Your task to perform on an android device: Search for Italian restaurants on Maps Image 0: 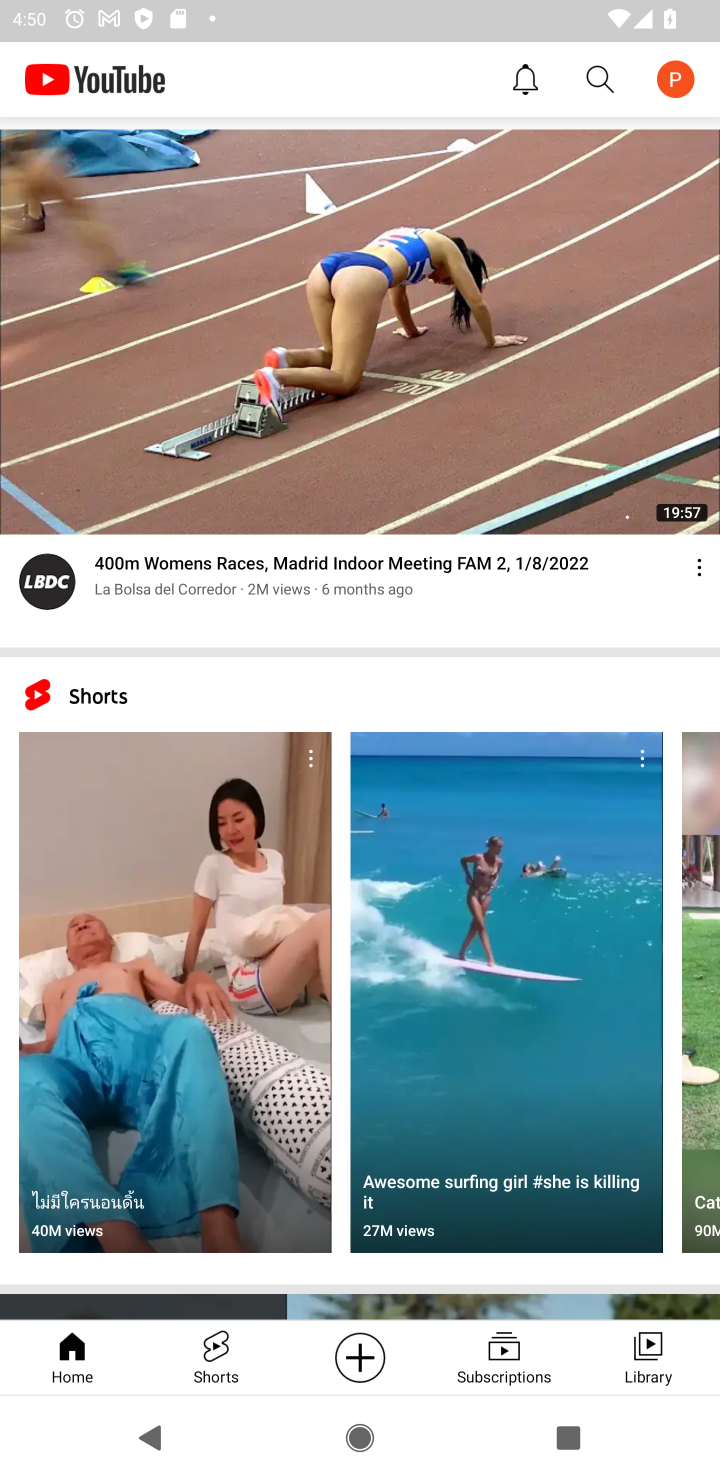
Step 0: press home button
Your task to perform on an android device: Search for Italian restaurants on Maps Image 1: 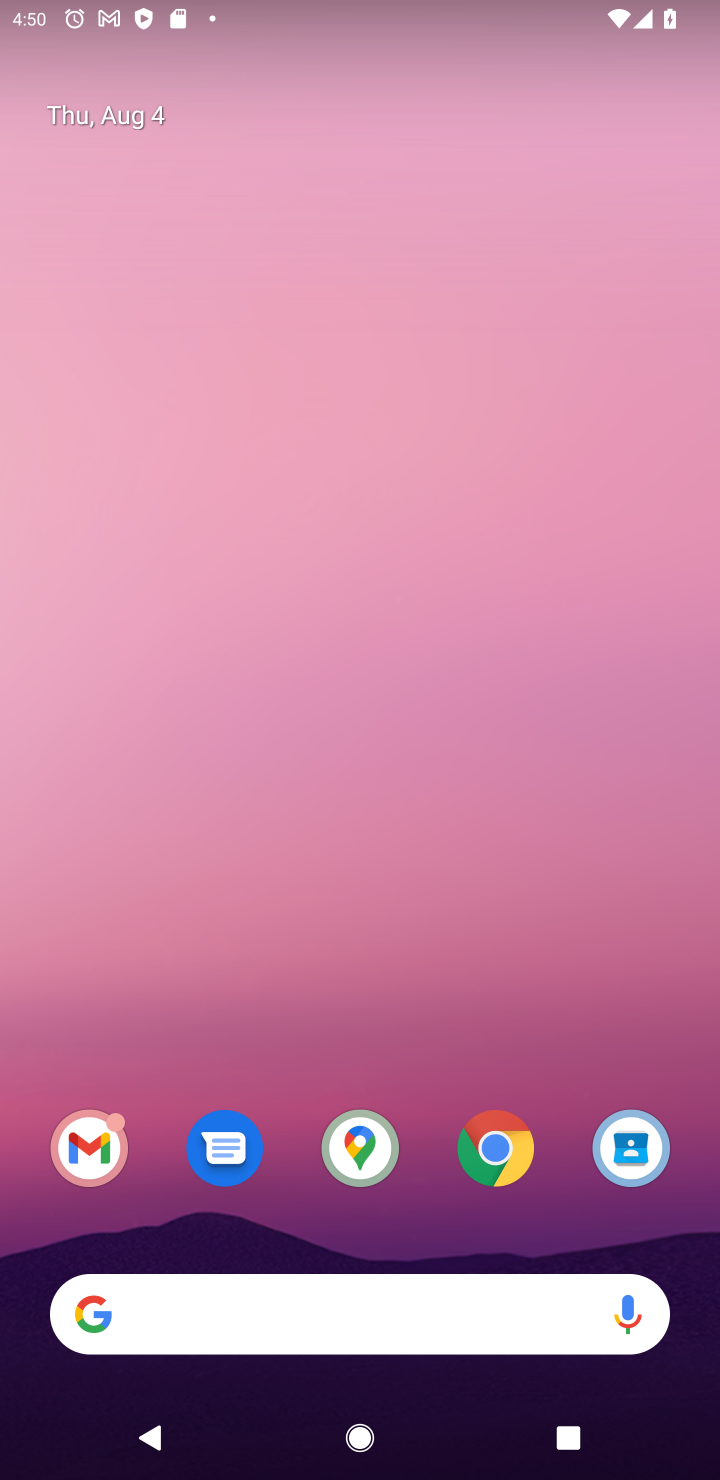
Step 1: click (358, 1150)
Your task to perform on an android device: Search for Italian restaurants on Maps Image 2: 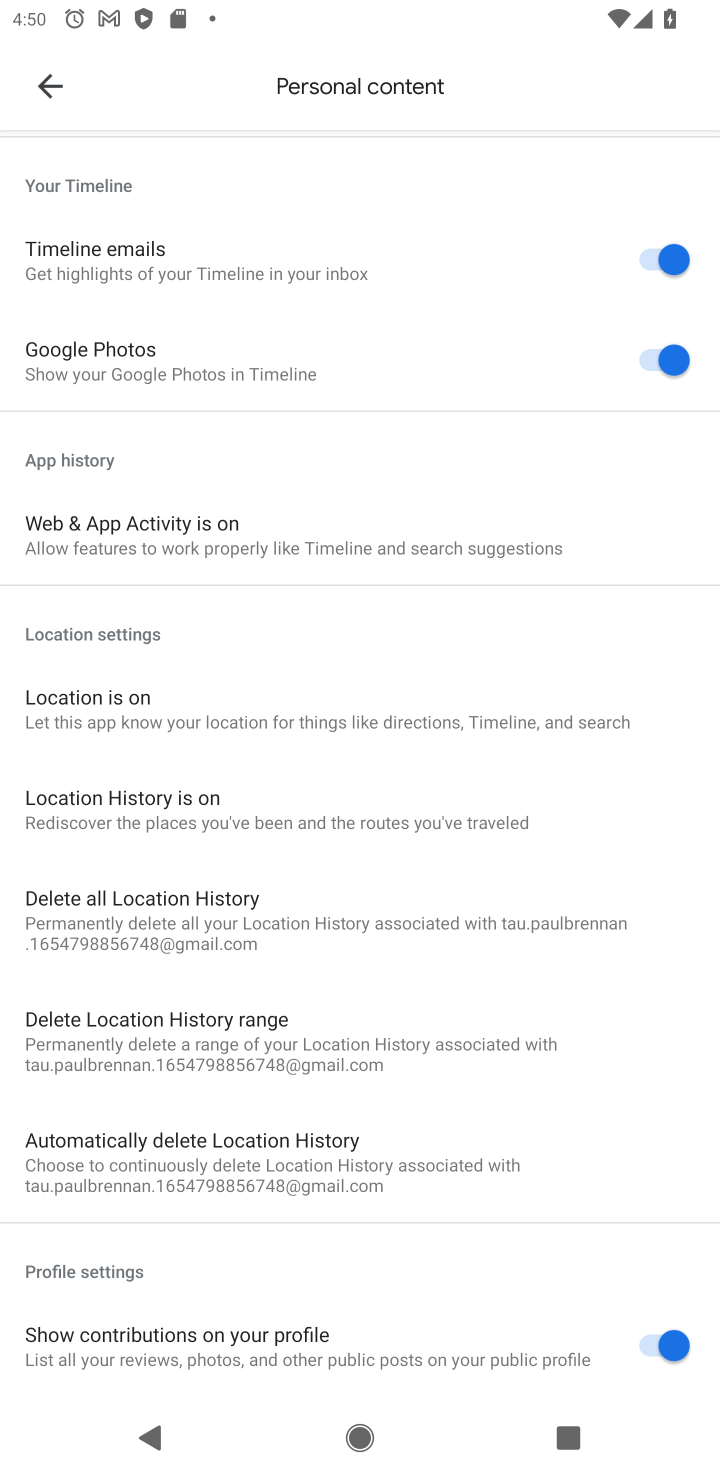
Step 2: press back button
Your task to perform on an android device: Search for Italian restaurants on Maps Image 3: 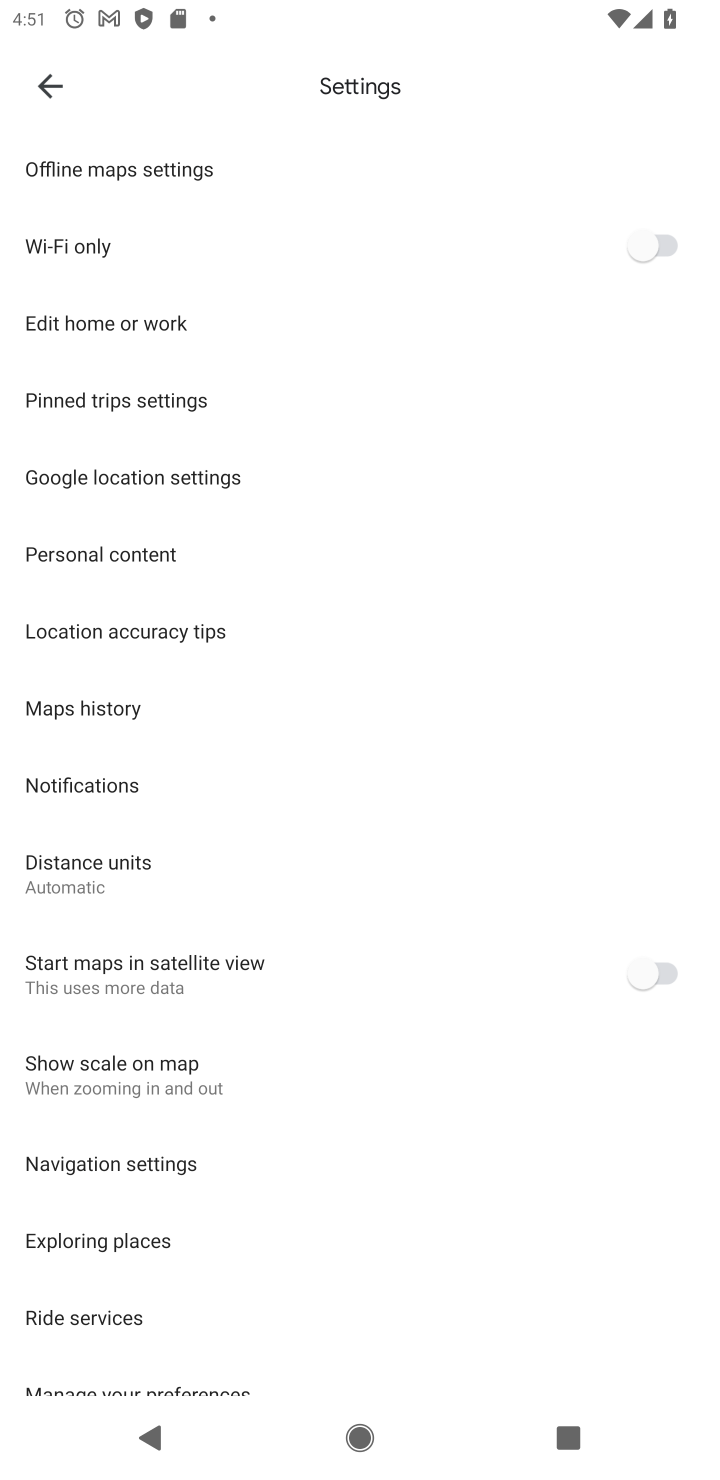
Step 3: press back button
Your task to perform on an android device: Search for Italian restaurants on Maps Image 4: 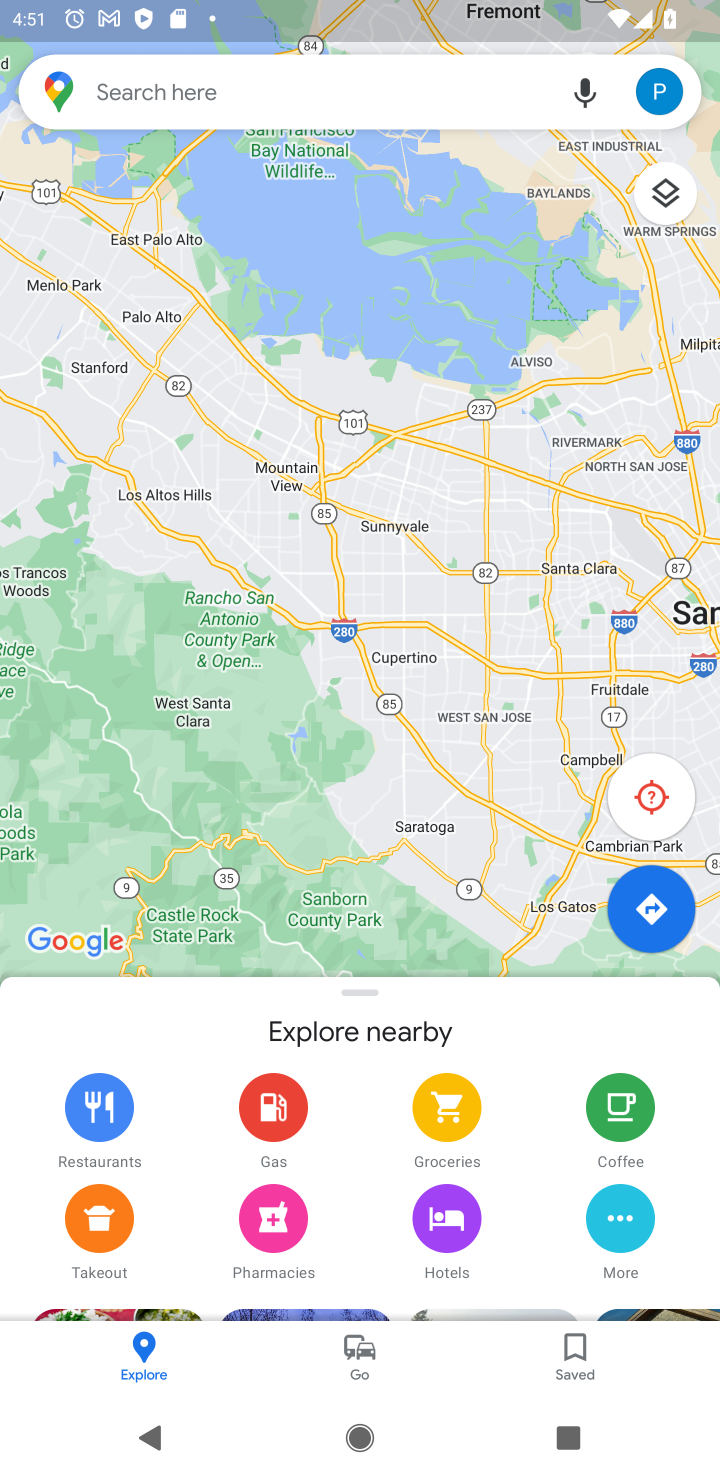
Step 4: click (245, 96)
Your task to perform on an android device: Search for Italian restaurants on Maps Image 5: 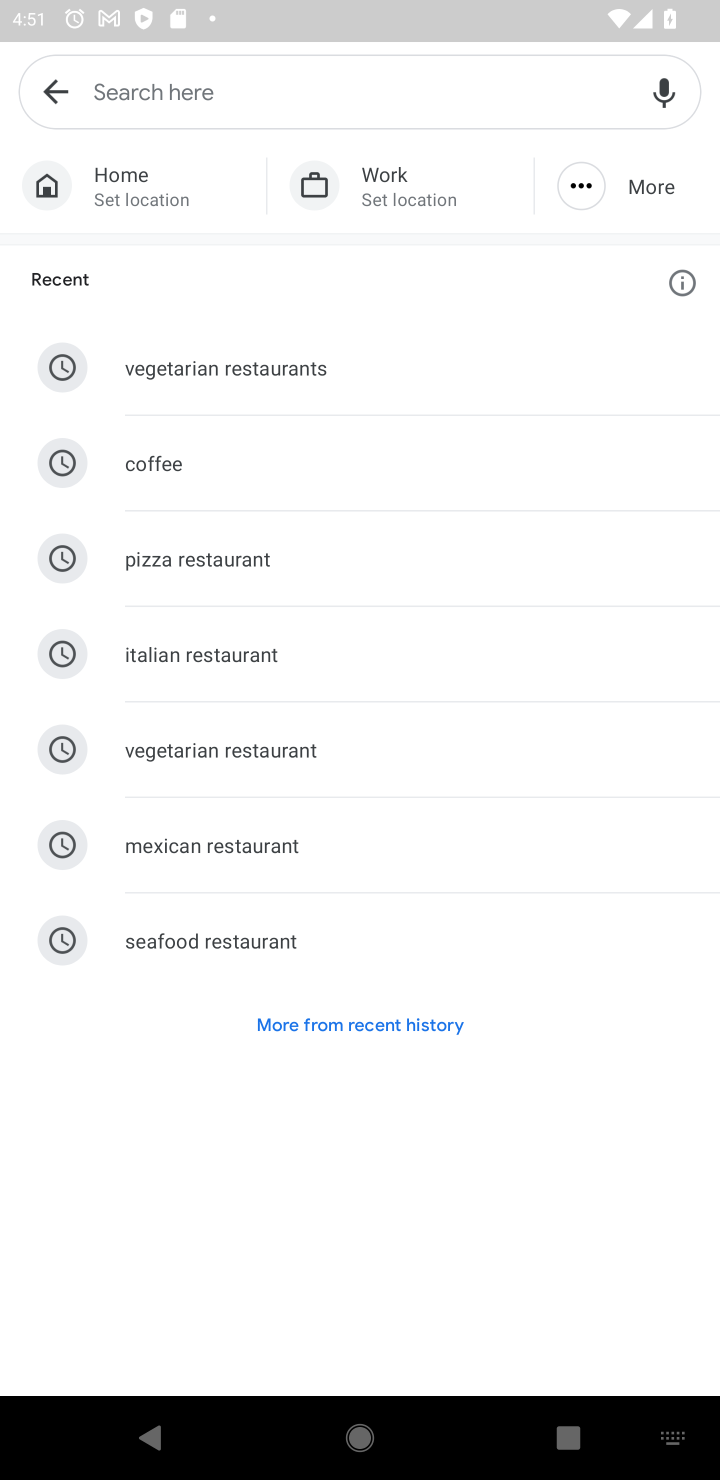
Step 5: type "italian restaurants"
Your task to perform on an android device: Search for Italian restaurants on Maps Image 6: 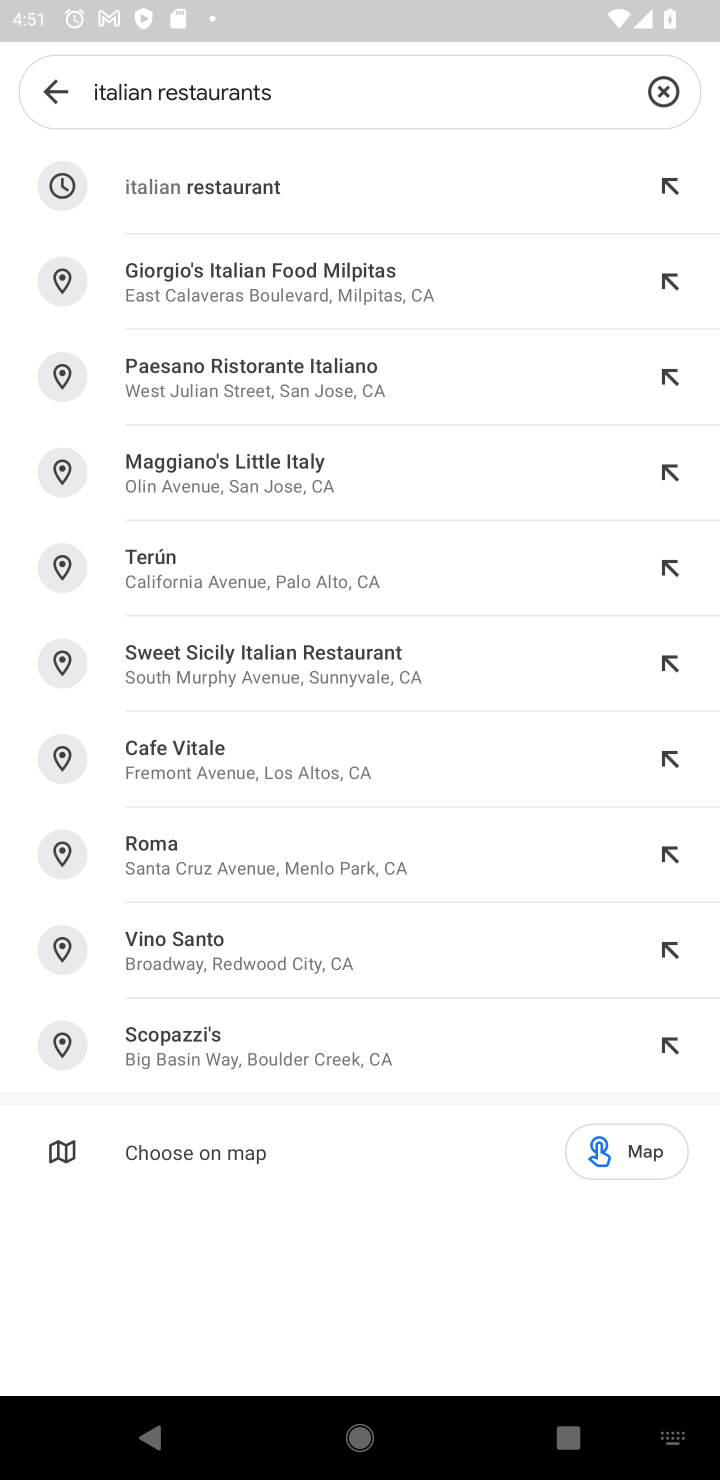
Step 6: click (220, 183)
Your task to perform on an android device: Search for Italian restaurants on Maps Image 7: 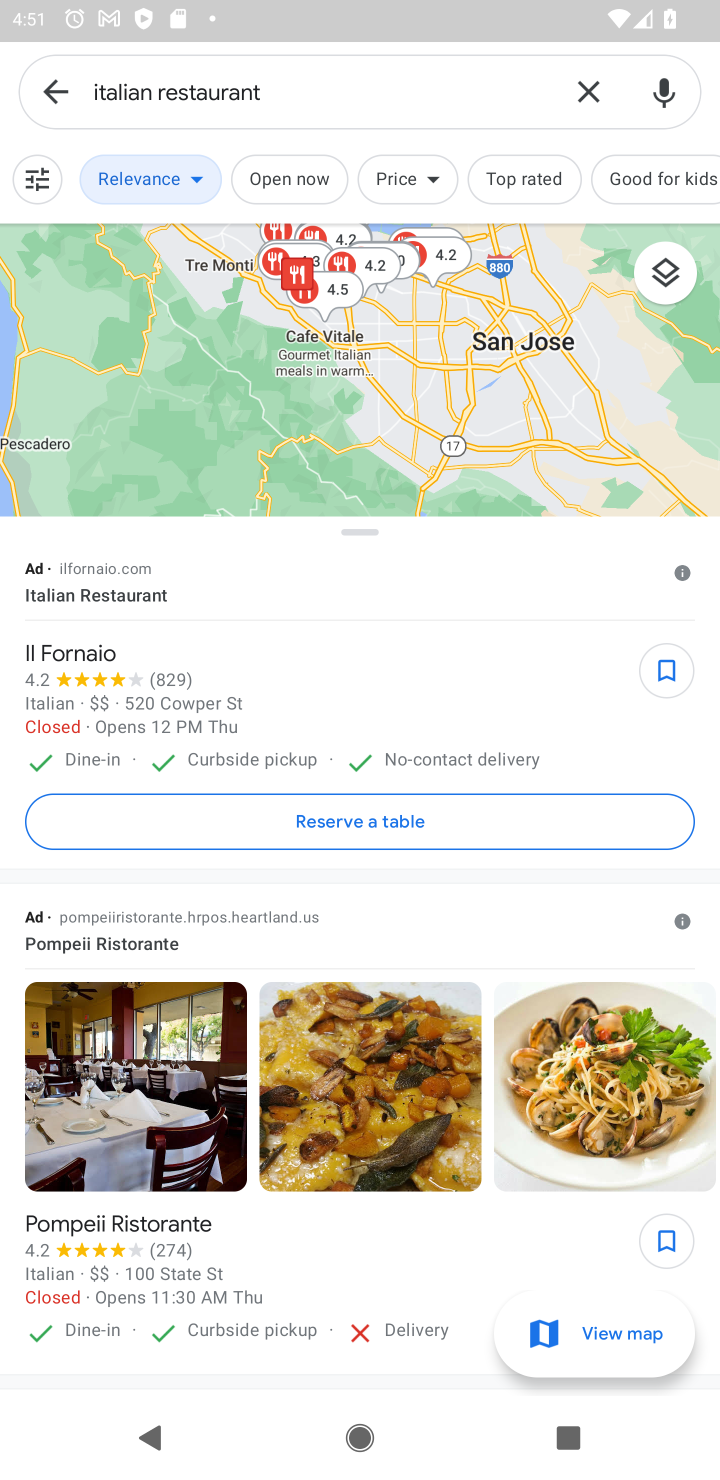
Step 7: task complete